Your task to perform on an android device: turn notification dots off Image 0: 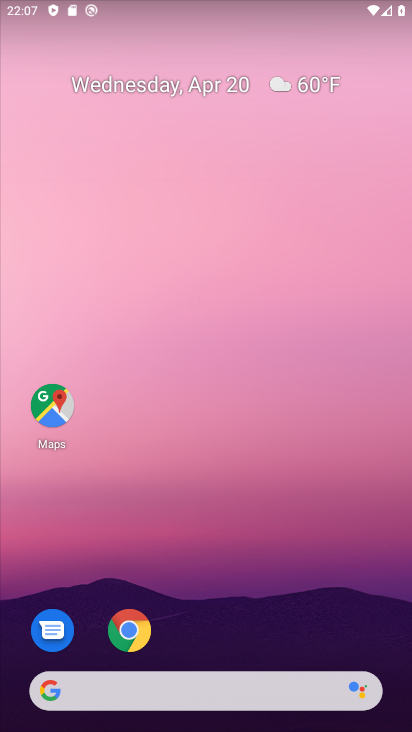
Step 0: drag from (251, 617) to (243, 286)
Your task to perform on an android device: turn notification dots off Image 1: 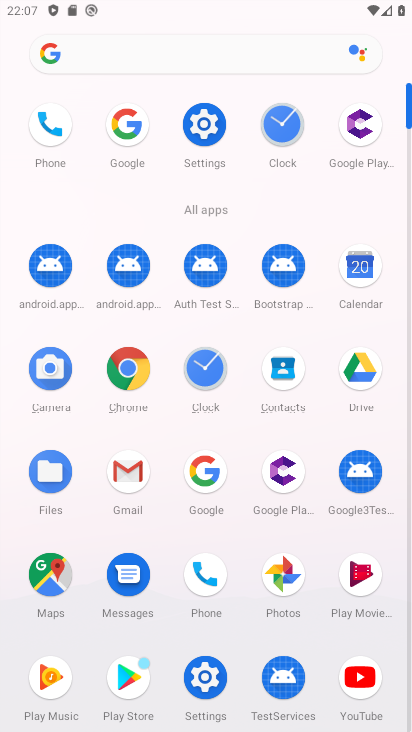
Step 1: click (207, 129)
Your task to perform on an android device: turn notification dots off Image 2: 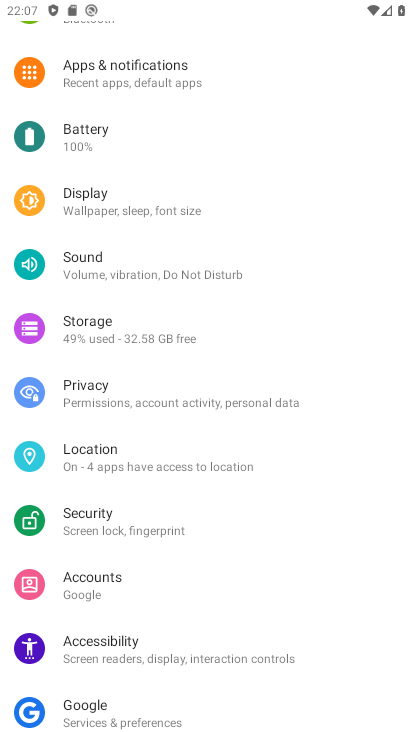
Step 2: click (211, 83)
Your task to perform on an android device: turn notification dots off Image 3: 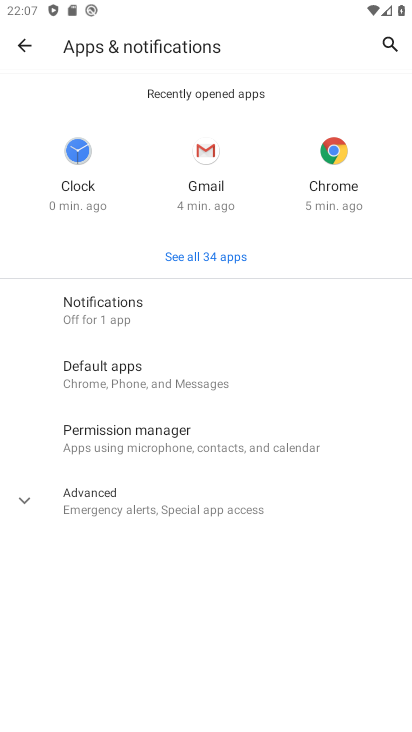
Step 3: click (230, 333)
Your task to perform on an android device: turn notification dots off Image 4: 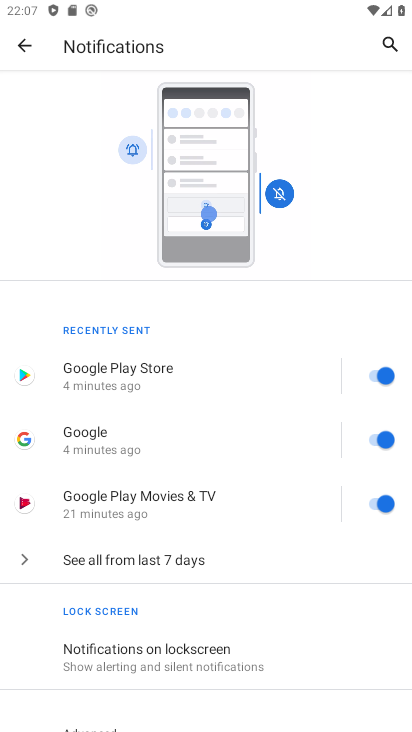
Step 4: drag from (218, 629) to (191, 188)
Your task to perform on an android device: turn notification dots off Image 5: 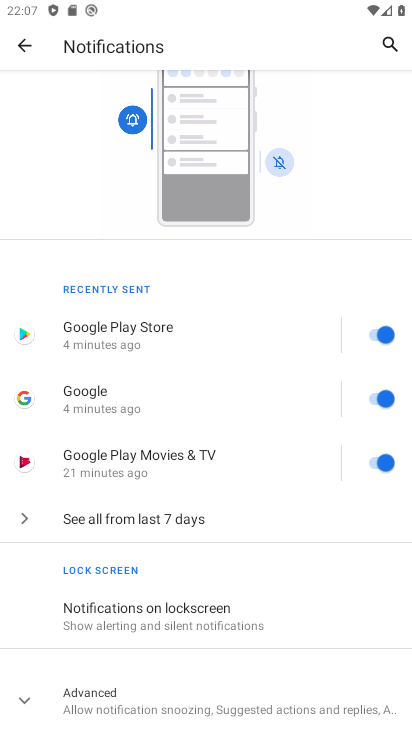
Step 5: click (127, 714)
Your task to perform on an android device: turn notification dots off Image 6: 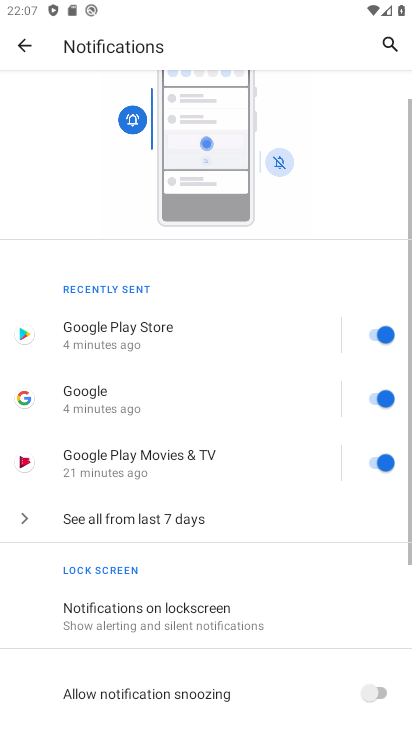
Step 6: drag from (152, 658) to (172, 217)
Your task to perform on an android device: turn notification dots off Image 7: 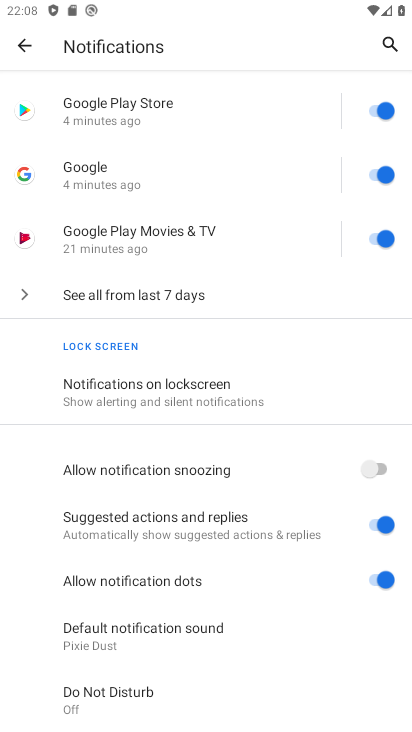
Step 7: click (375, 580)
Your task to perform on an android device: turn notification dots off Image 8: 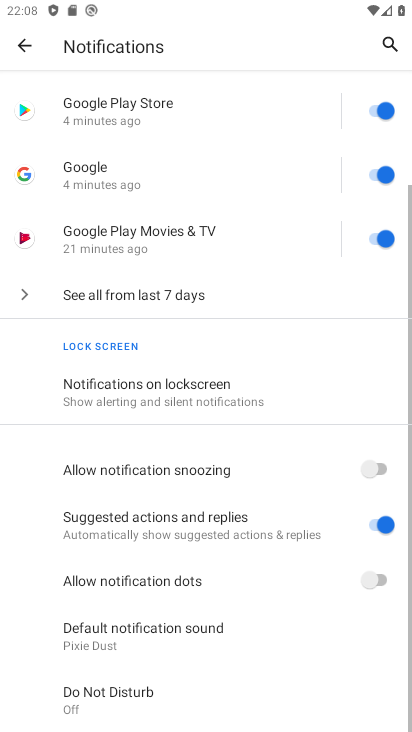
Step 8: task complete